Your task to perform on an android device: check the backup settings in the google photos Image 0: 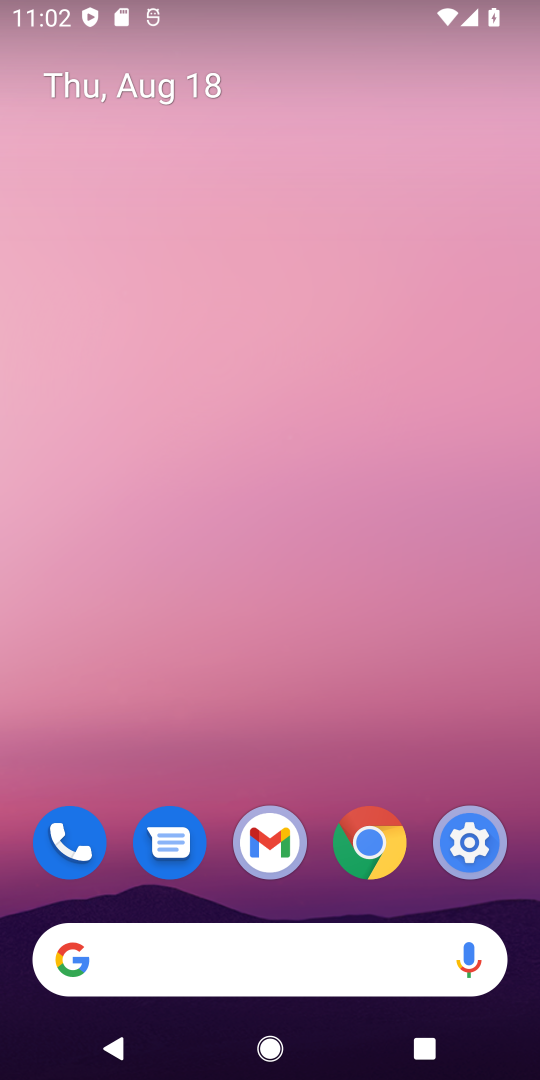
Step 0: drag from (204, 799) to (157, 116)
Your task to perform on an android device: check the backup settings in the google photos Image 1: 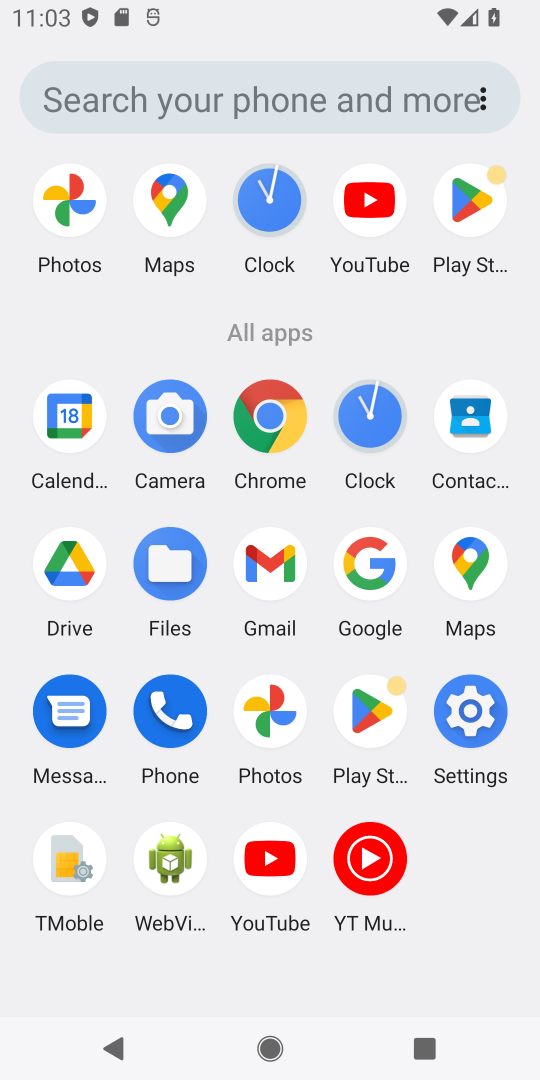
Step 1: click (92, 227)
Your task to perform on an android device: check the backup settings in the google photos Image 2: 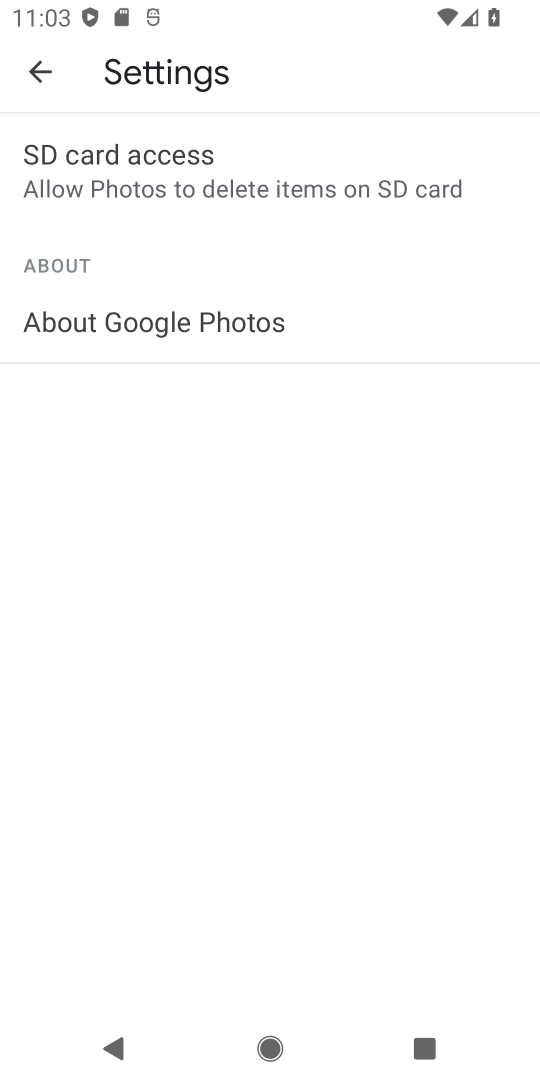
Step 2: click (53, 95)
Your task to perform on an android device: check the backup settings in the google photos Image 3: 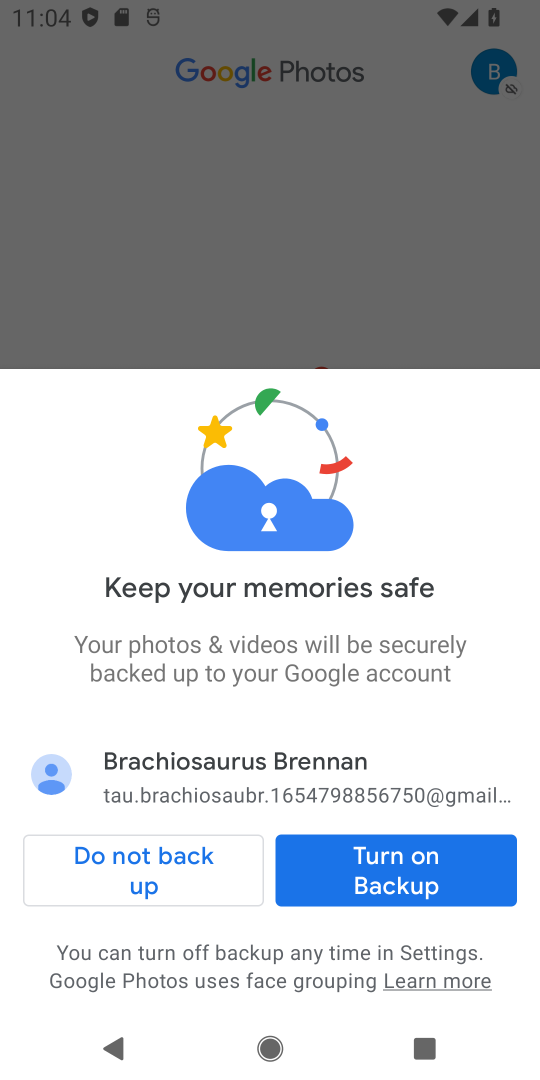
Step 3: task complete